Your task to perform on an android device: Set the phone to "Do not disturb". Image 0: 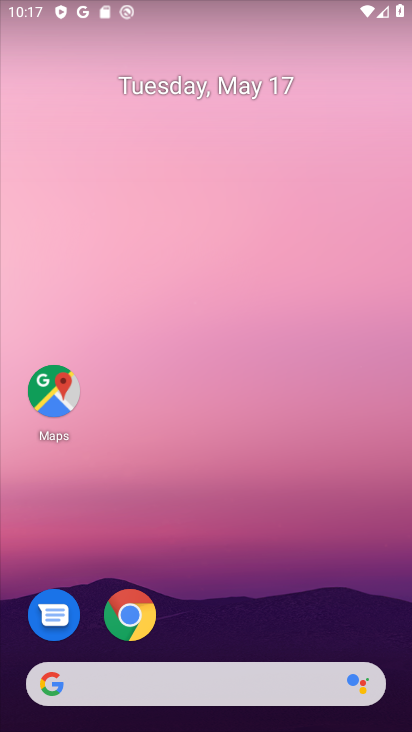
Step 0: drag from (290, 595) to (211, 29)
Your task to perform on an android device: Set the phone to "Do not disturb". Image 1: 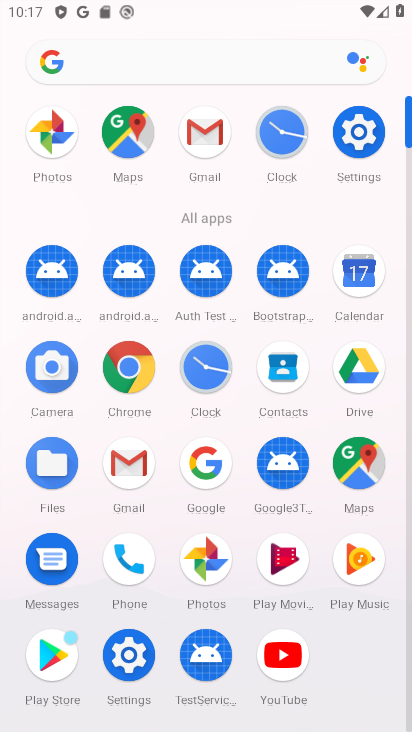
Step 1: click (358, 139)
Your task to perform on an android device: Set the phone to "Do not disturb". Image 2: 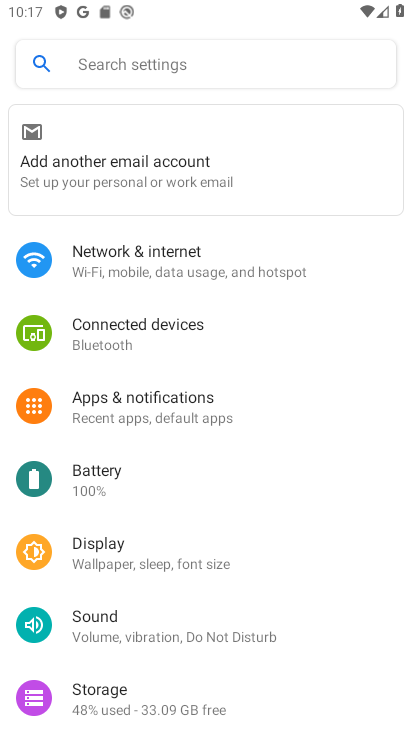
Step 2: click (210, 619)
Your task to perform on an android device: Set the phone to "Do not disturb". Image 3: 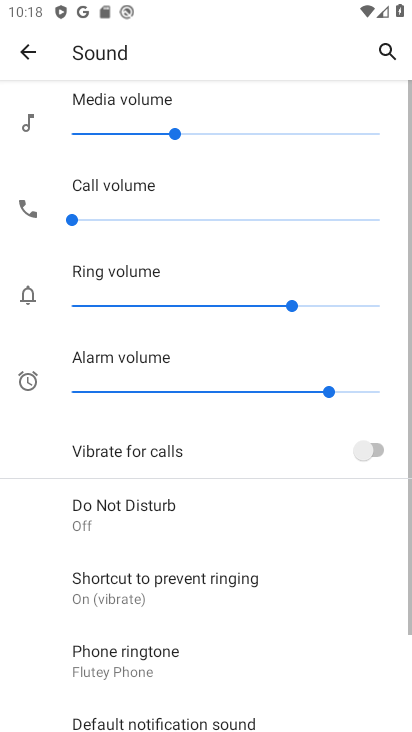
Step 3: drag from (229, 671) to (187, 144)
Your task to perform on an android device: Set the phone to "Do not disturb". Image 4: 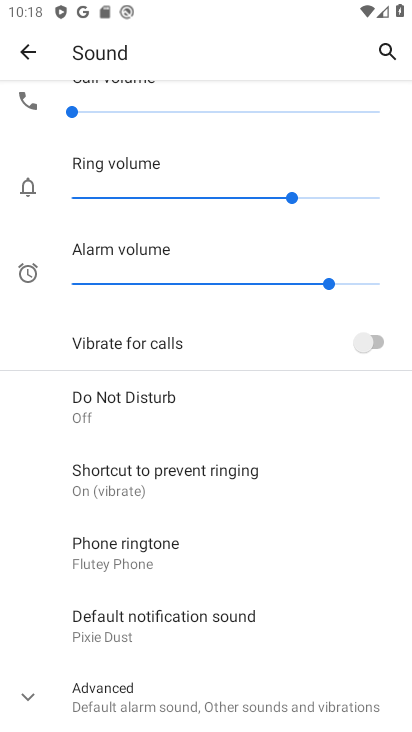
Step 4: click (209, 401)
Your task to perform on an android device: Set the phone to "Do not disturb". Image 5: 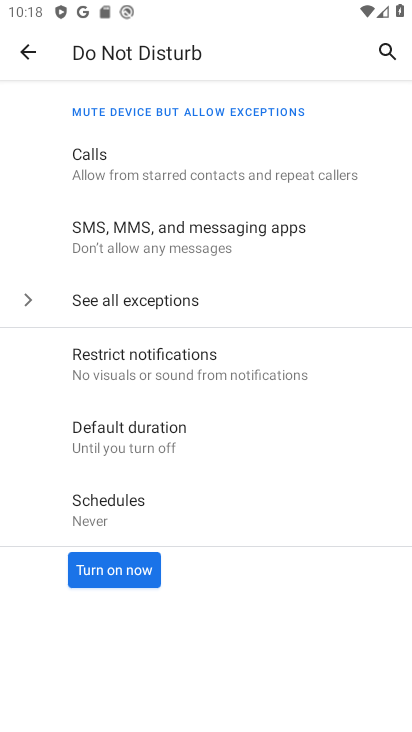
Step 5: click (140, 567)
Your task to perform on an android device: Set the phone to "Do not disturb". Image 6: 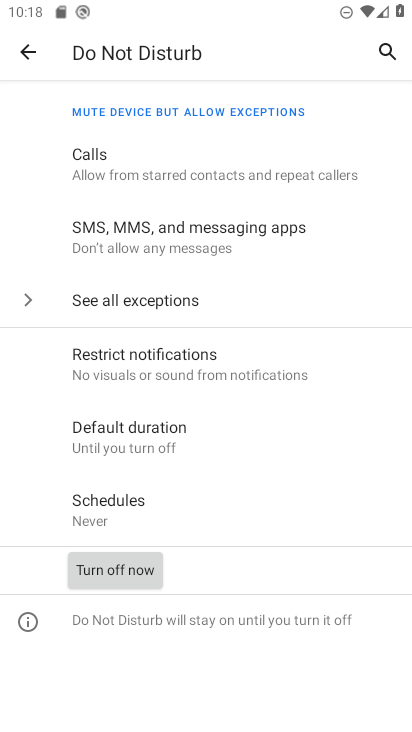
Step 6: task complete